Your task to perform on an android device: toggle javascript in the chrome app Image 0: 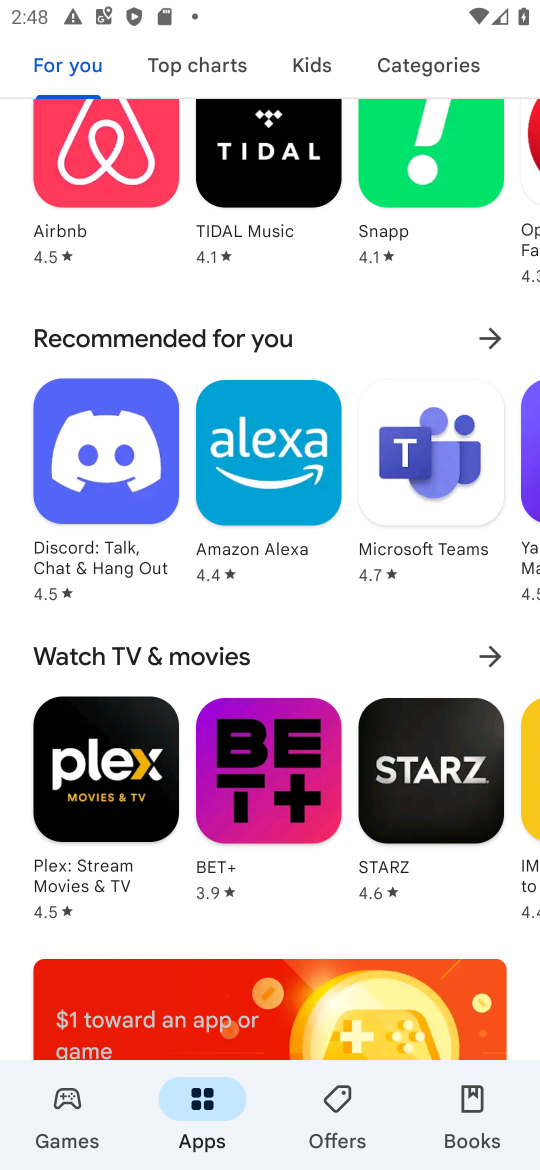
Step 0: press home button
Your task to perform on an android device: toggle javascript in the chrome app Image 1: 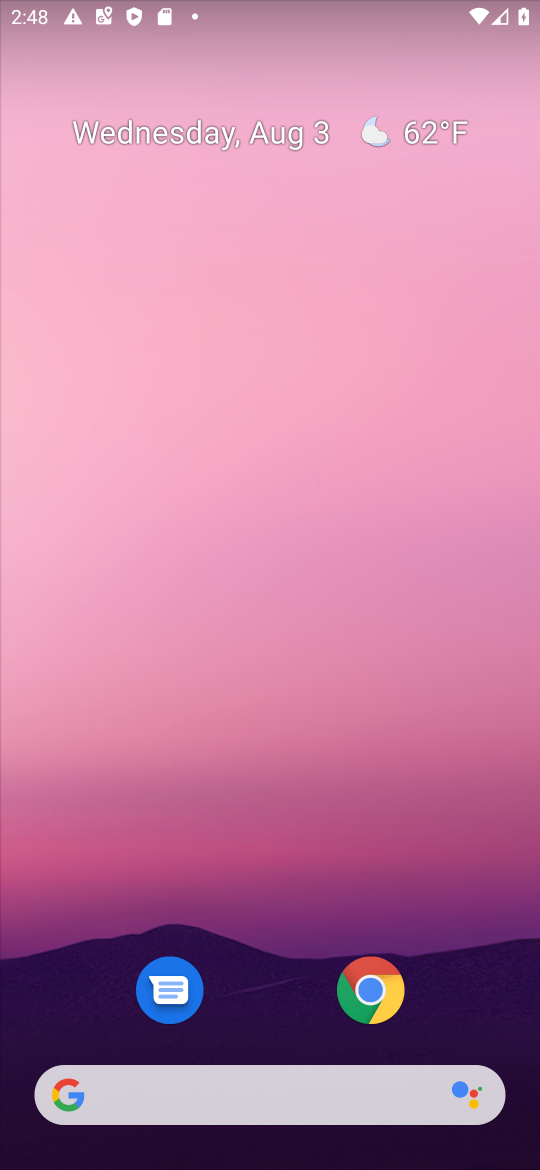
Step 1: drag from (348, 954) to (350, 198)
Your task to perform on an android device: toggle javascript in the chrome app Image 2: 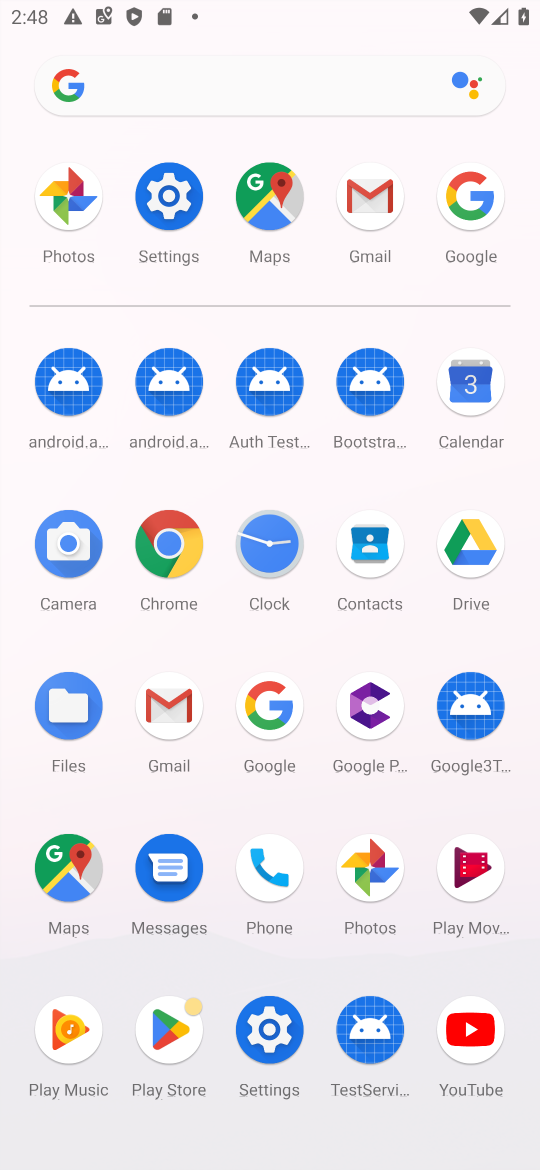
Step 2: click (173, 547)
Your task to perform on an android device: toggle javascript in the chrome app Image 3: 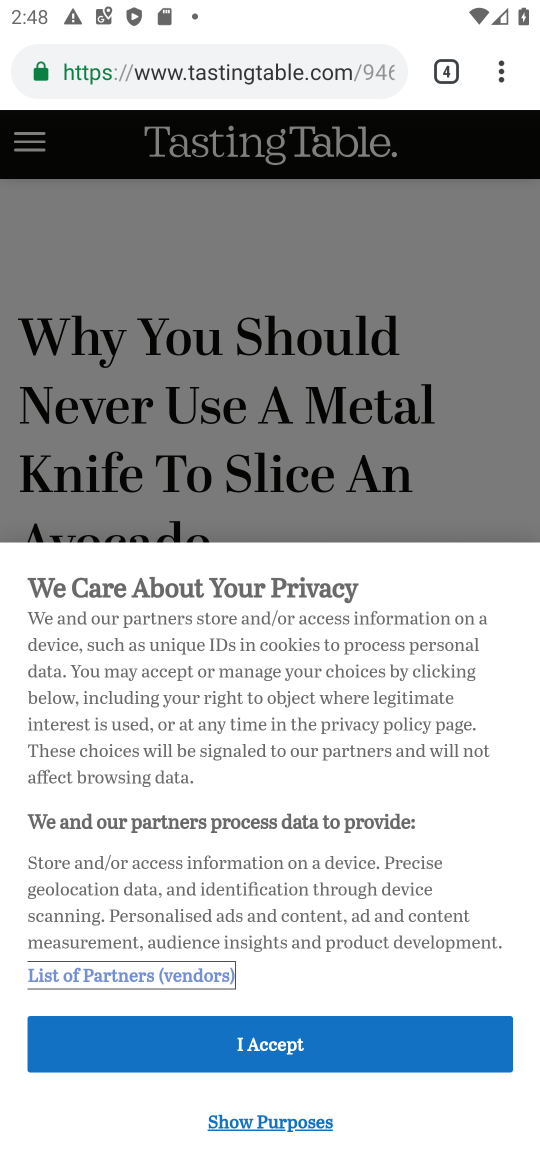
Step 3: click (506, 80)
Your task to perform on an android device: toggle javascript in the chrome app Image 4: 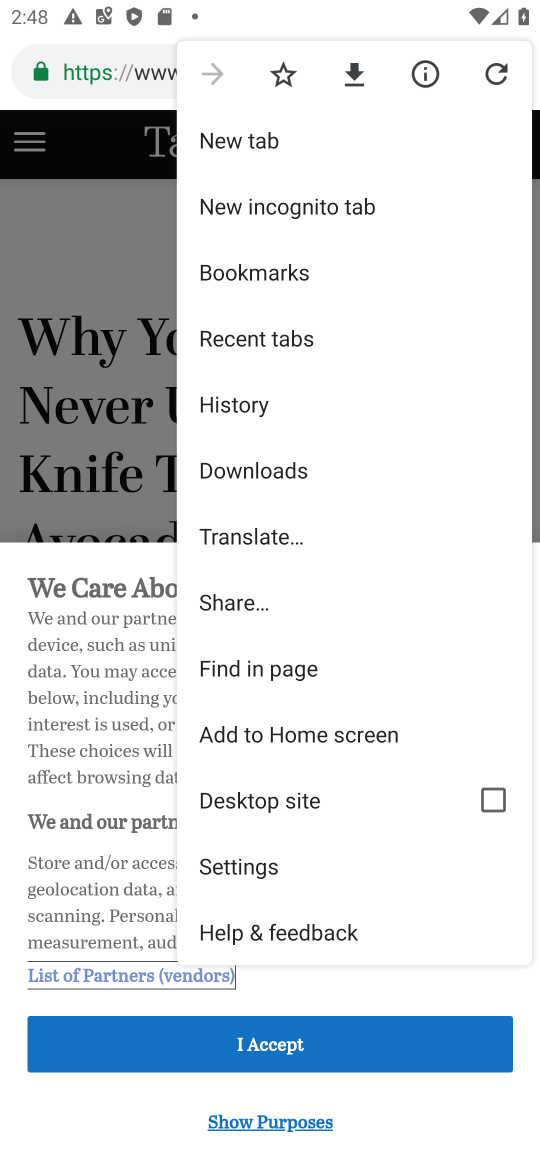
Step 4: click (234, 864)
Your task to perform on an android device: toggle javascript in the chrome app Image 5: 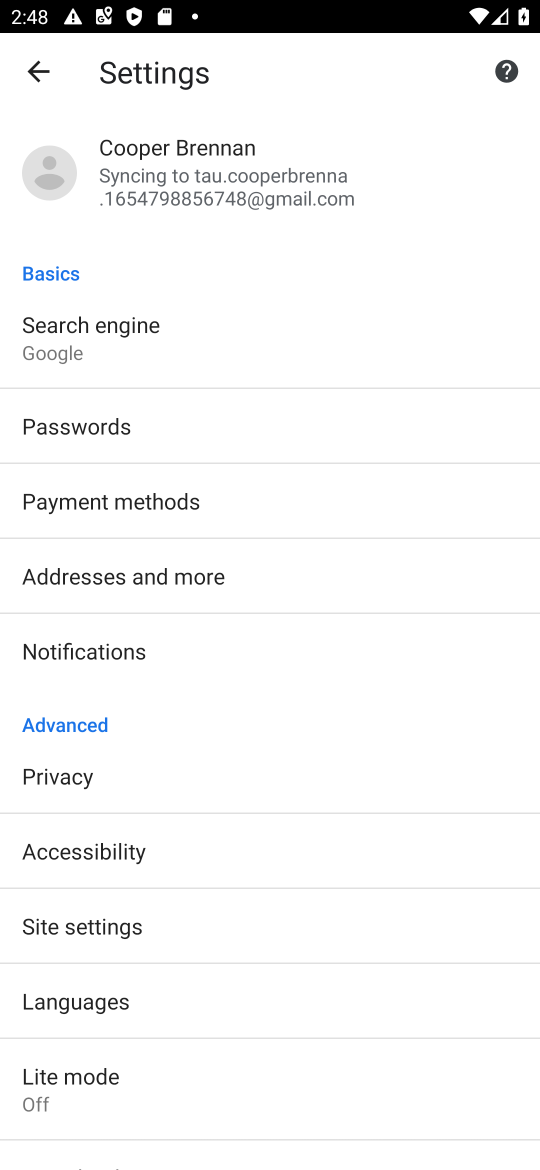
Step 5: click (88, 914)
Your task to perform on an android device: toggle javascript in the chrome app Image 6: 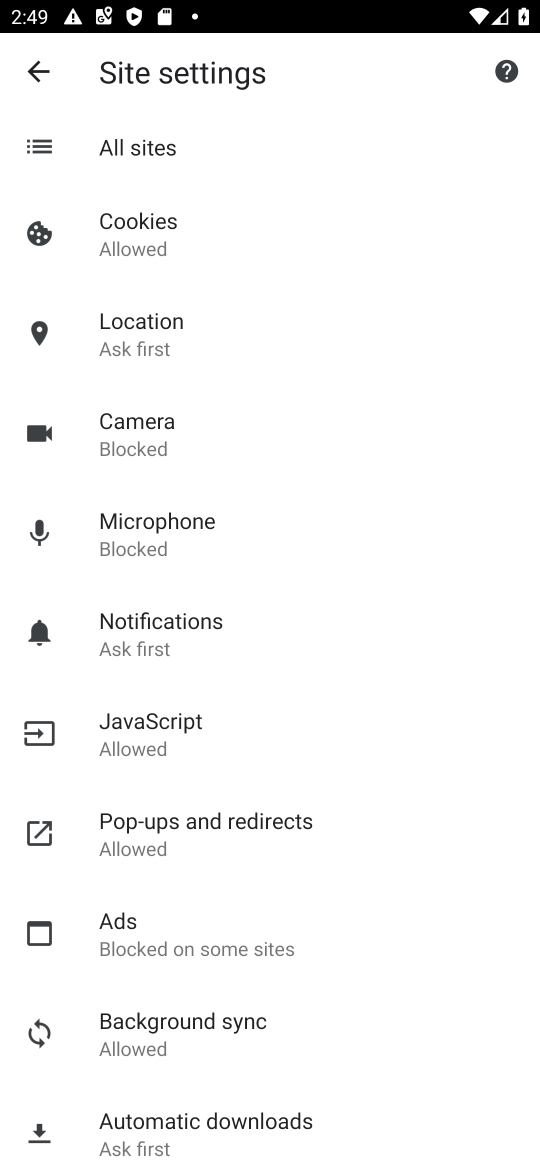
Step 6: click (159, 736)
Your task to perform on an android device: toggle javascript in the chrome app Image 7: 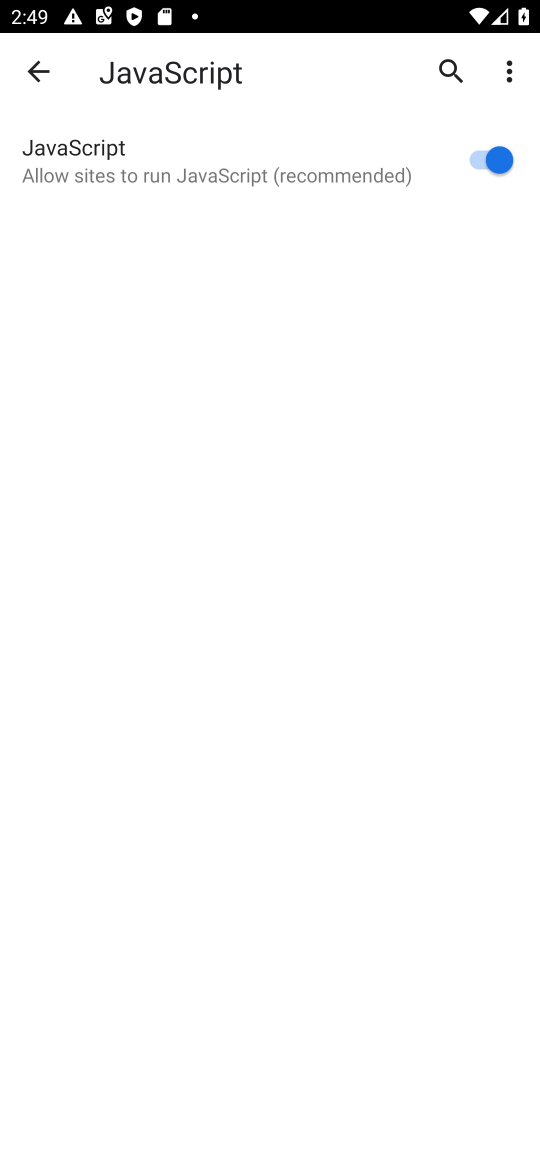
Step 7: click (480, 153)
Your task to perform on an android device: toggle javascript in the chrome app Image 8: 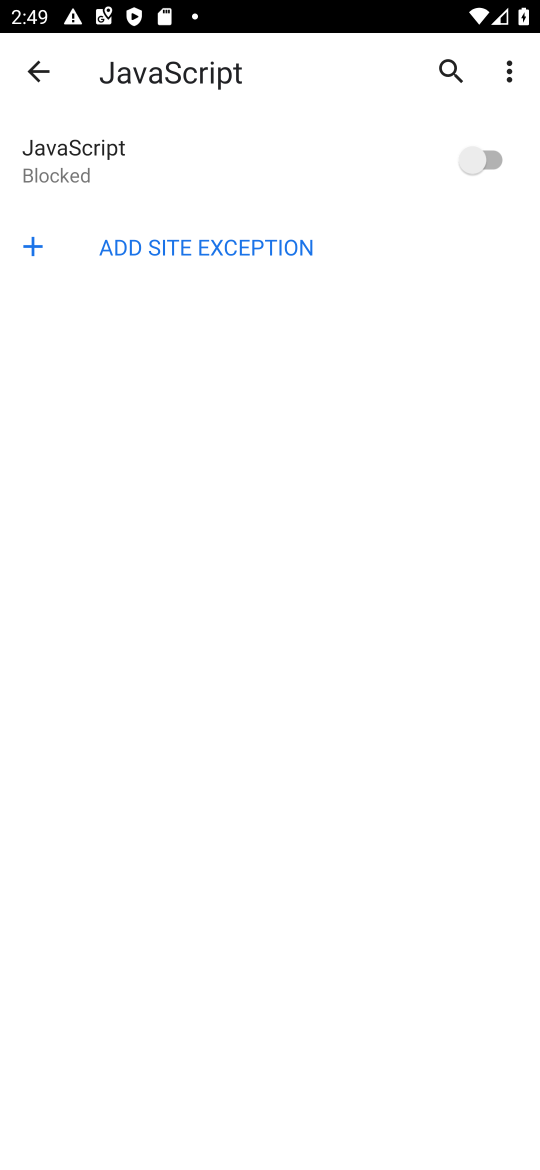
Step 8: task complete